Your task to perform on an android device: refresh tabs in the chrome app Image 0: 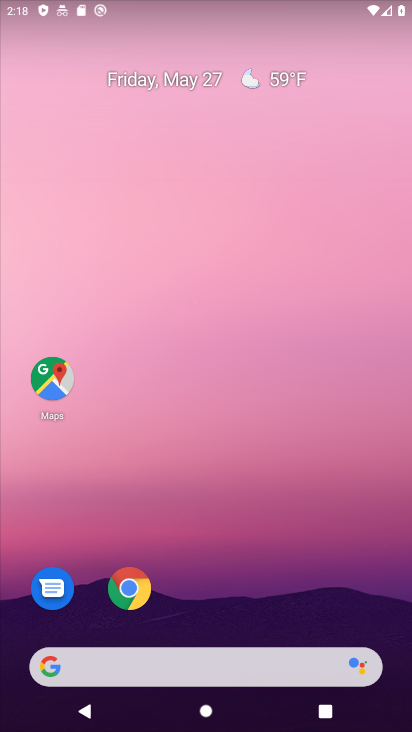
Step 0: drag from (278, 707) to (182, 174)
Your task to perform on an android device: refresh tabs in the chrome app Image 1: 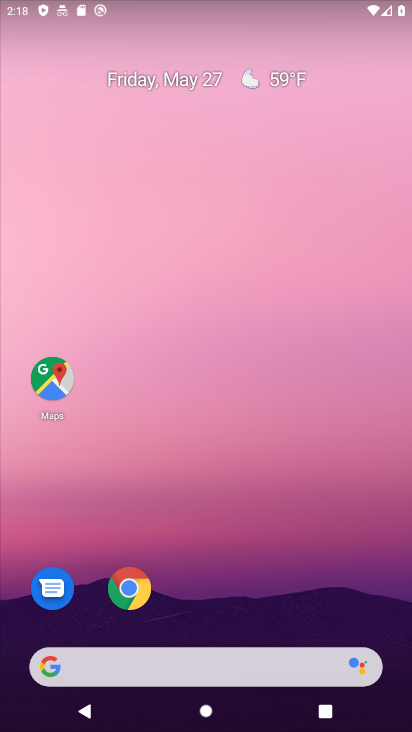
Step 1: drag from (277, 631) to (222, 254)
Your task to perform on an android device: refresh tabs in the chrome app Image 2: 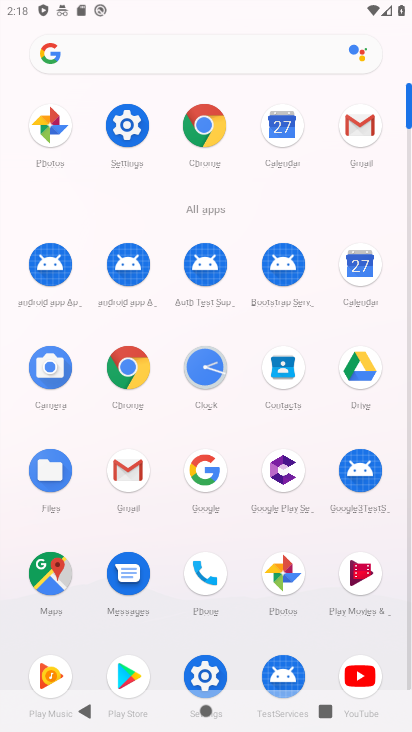
Step 2: click (124, 360)
Your task to perform on an android device: refresh tabs in the chrome app Image 3: 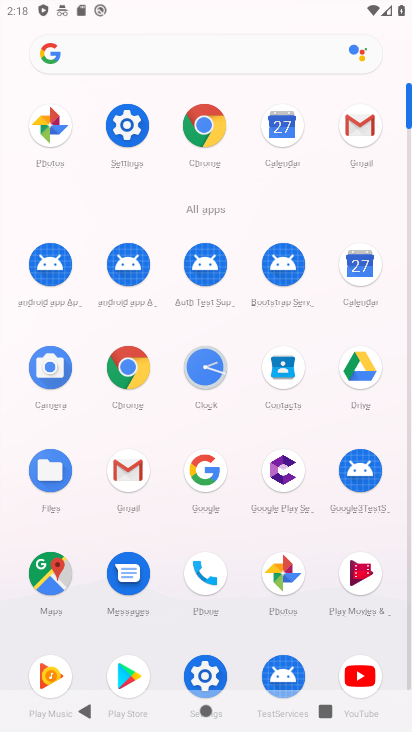
Step 3: click (124, 360)
Your task to perform on an android device: refresh tabs in the chrome app Image 4: 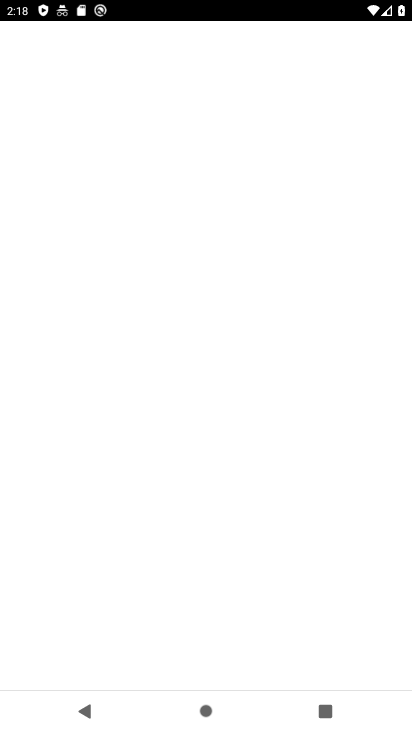
Step 4: click (124, 360)
Your task to perform on an android device: refresh tabs in the chrome app Image 5: 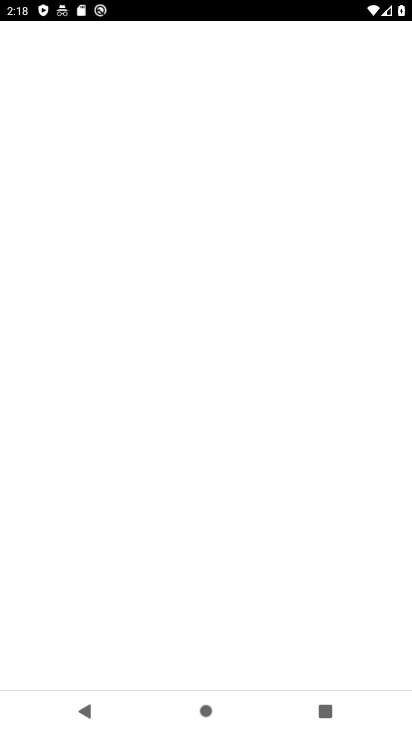
Step 5: click (124, 360)
Your task to perform on an android device: refresh tabs in the chrome app Image 6: 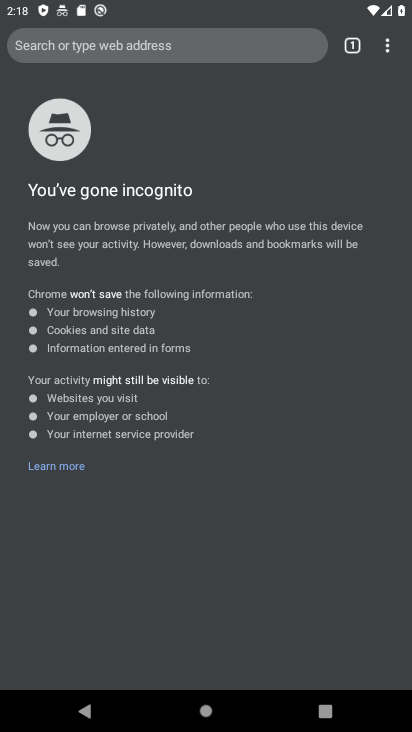
Step 6: click (386, 50)
Your task to perform on an android device: refresh tabs in the chrome app Image 7: 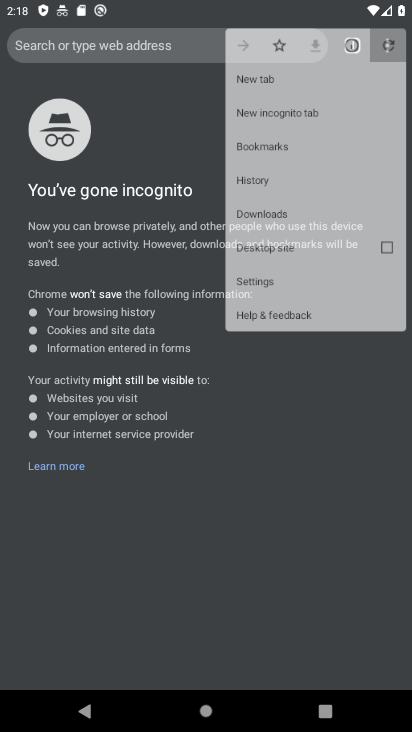
Step 7: click (386, 52)
Your task to perform on an android device: refresh tabs in the chrome app Image 8: 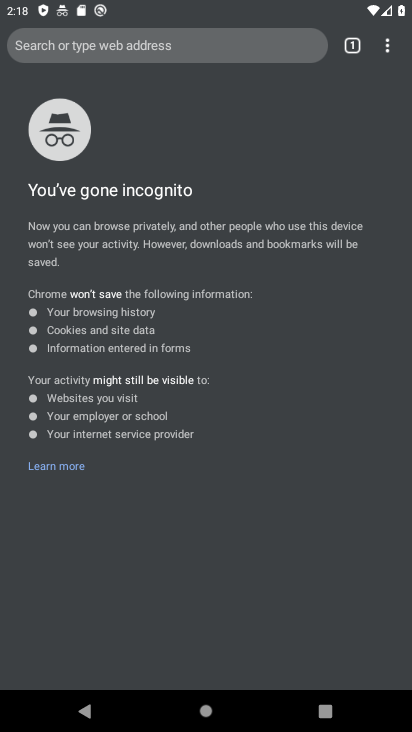
Step 8: task complete